Your task to perform on an android device: turn off notifications settings in the gmail app Image 0: 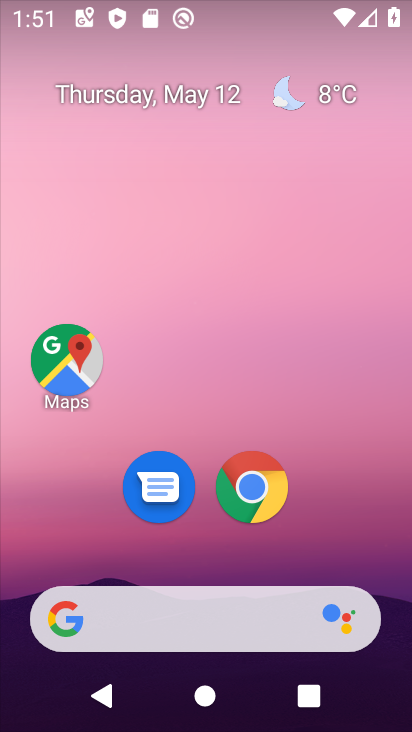
Step 0: drag from (286, 548) to (261, 27)
Your task to perform on an android device: turn off notifications settings in the gmail app Image 1: 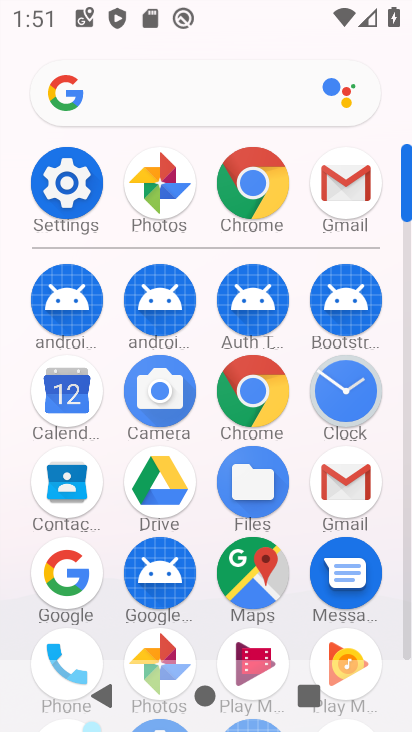
Step 1: click (325, 489)
Your task to perform on an android device: turn off notifications settings in the gmail app Image 2: 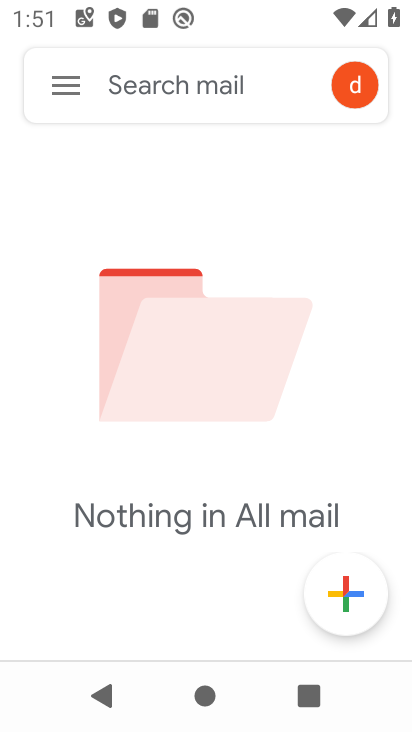
Step 2: click (54, 92)
Your task to perform on an android device: turn off notifications settings in the gmail app Image 3: 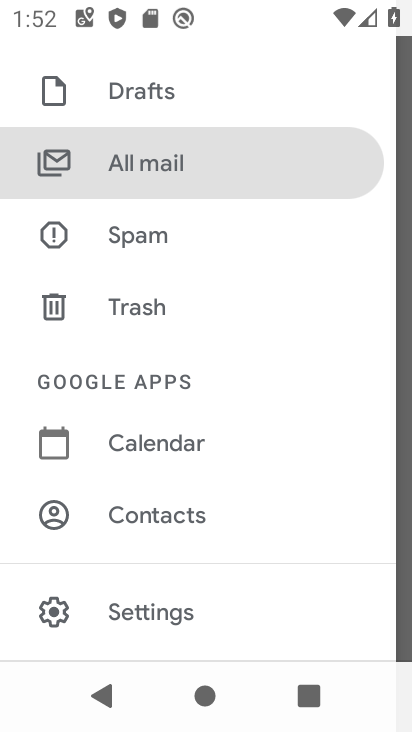
Step 3: click (167, 603)
Your task to perform on an android device: turn off notifications settings in the gmail app Image 4: 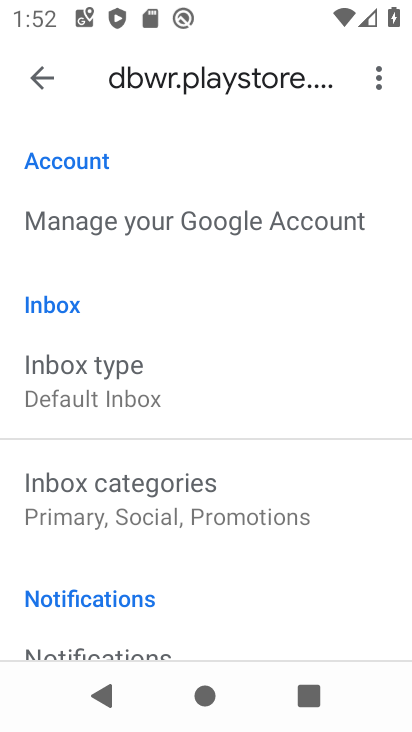
Step 4: drag from (146, 591) to (117, 309)
Your task to perform on an android device: turn off notifications settings in the gmail app Image 5: 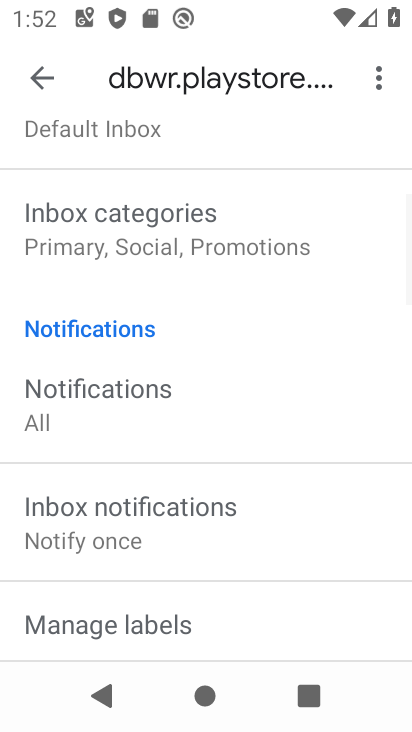
Step 5: drag from (73, 538) to (136, 255)
Your task to perform on an android device: turn off notifications settings in the gmail app Image 6: 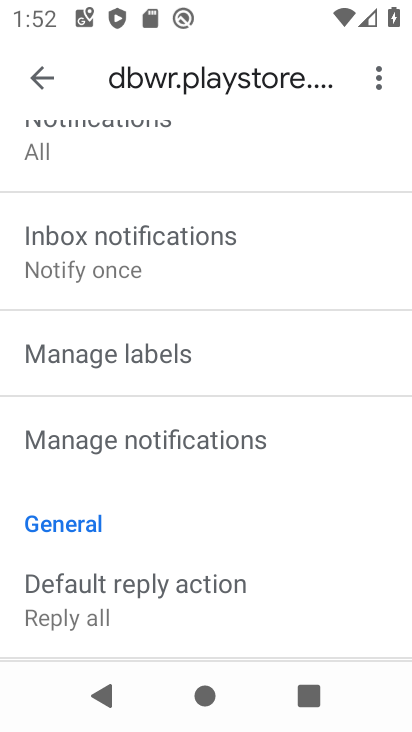
Step 6: click (90, 436)
Your task to perform on an android device: turn off notifications settings in the gmail app Image 7: 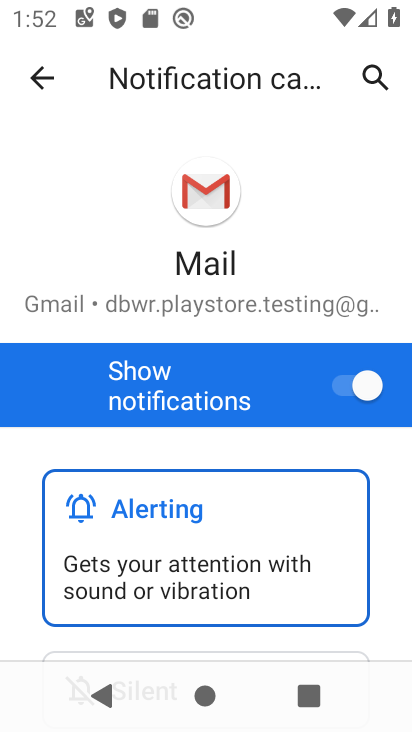
Step 7: click (356, 386)
Your task to perform on an android device: turn off notifications settings in the gmail app Image 8: 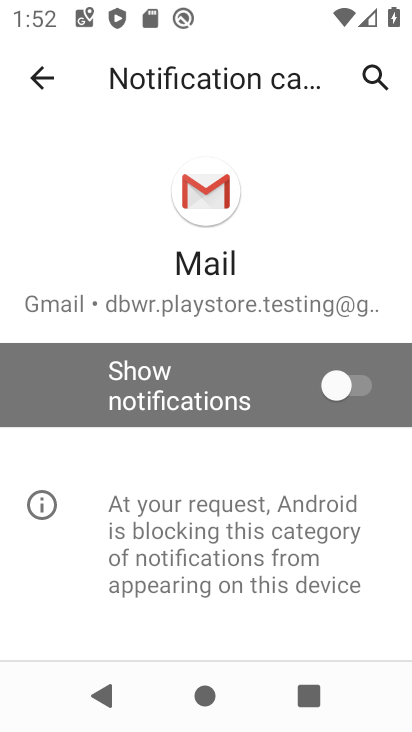
Step 8: task complete